Your task to perform on an android device: change the clock style Image 0: 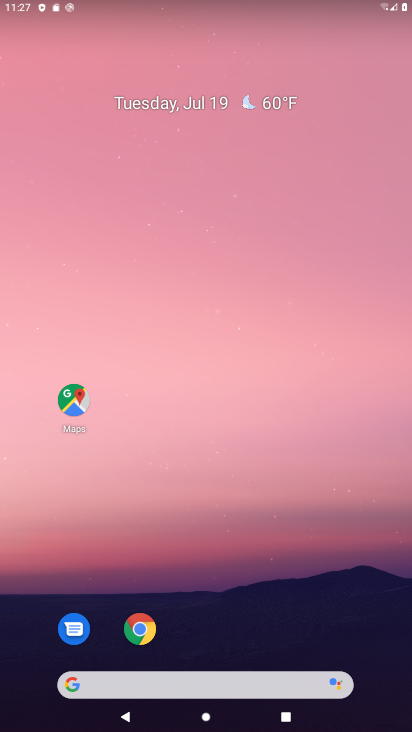
Step 0: drag from (243, 661) to (204, 14)
Your task to perform on an android device: change the clock style Image 1: 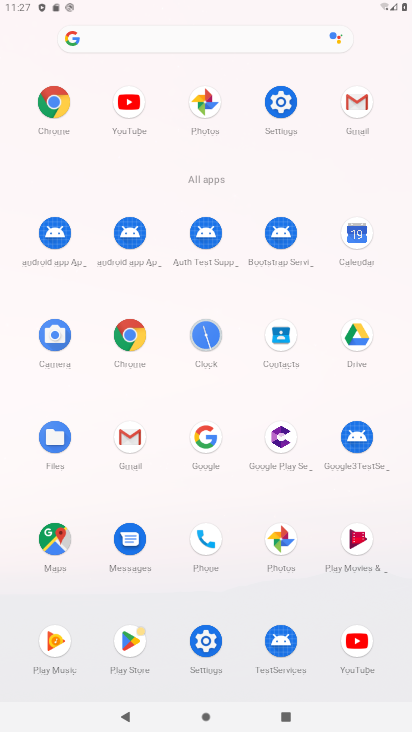
Step 1: click (210, 330)
Your task to perform on an android device: change the clock style Image 2: 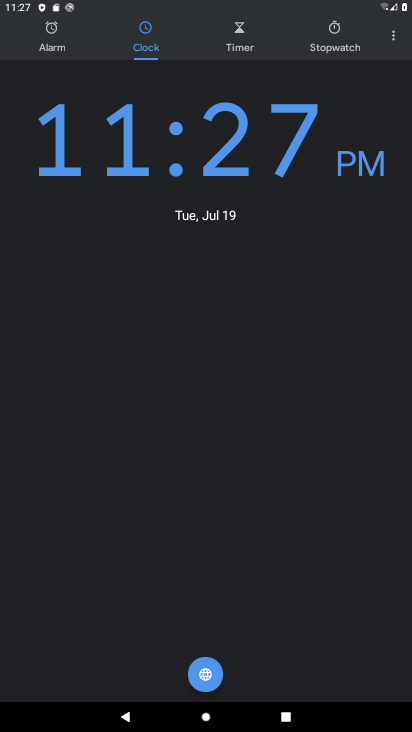
Step 2: click (389, 36)
Your task to perform on an android device: change the clock style Image 3: 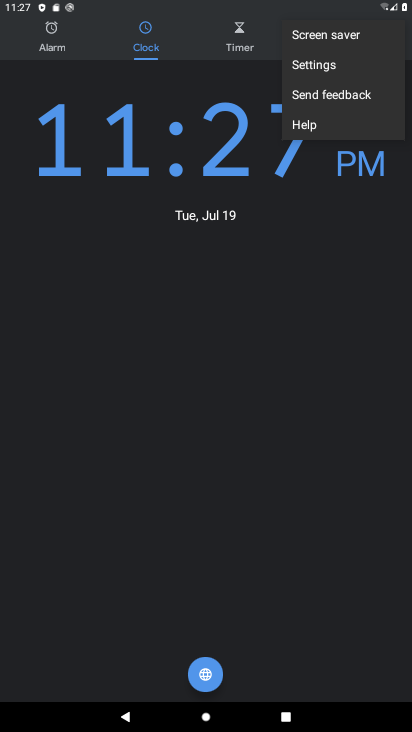
Step 3: click (316, 58)
Your task to perform on an android device: change the clock style Image 4: 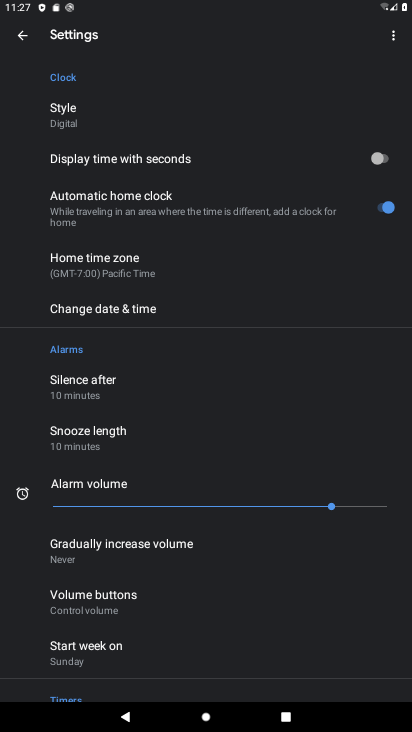
Step 4: click (99, 114)
Your task to perform on an android device: change the clock style Image 5: 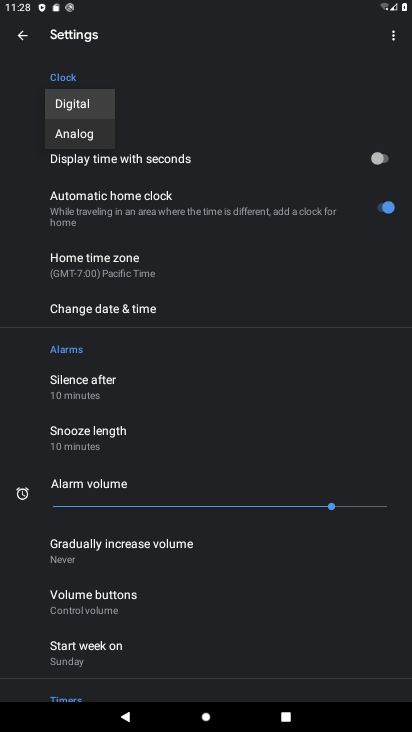
Step 5: click (103, 140)
Your task to perform on an android device: change the clock style Image 6: 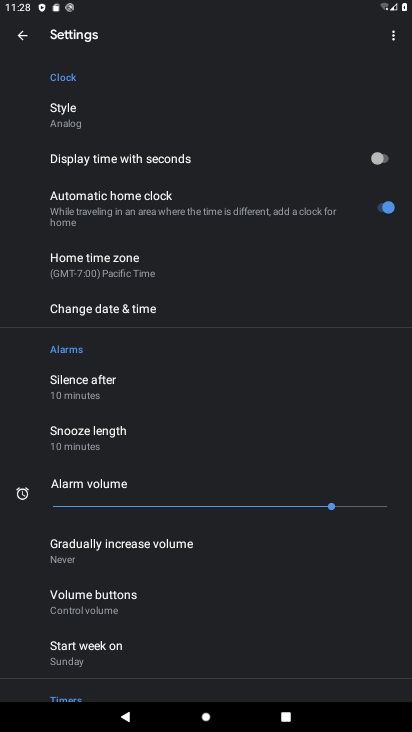
Step 6: task complete